Your task to perform on an android device: change the clock display to show seconds Image 0: 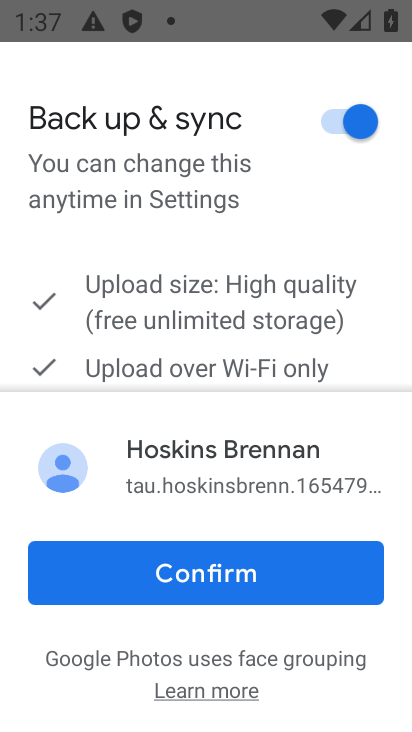
Step 0: press home button
Your task to perform on an android device: change the clock display to show seconds Image 1: 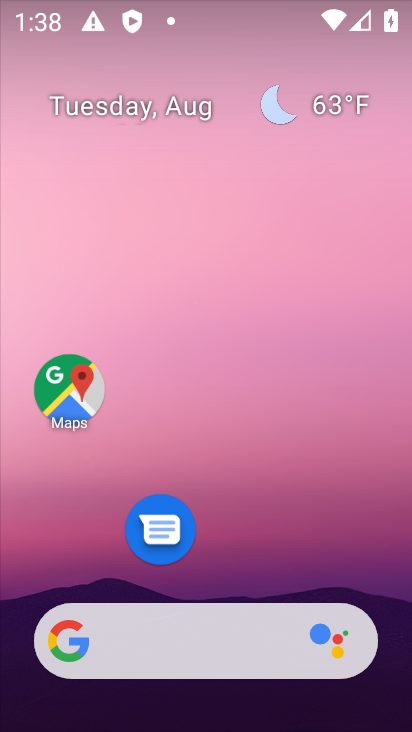
Step 1: drag from (237, 536) to (246, 12)
Your task to perform on an android device: change the clock display to show seconds Image 2: 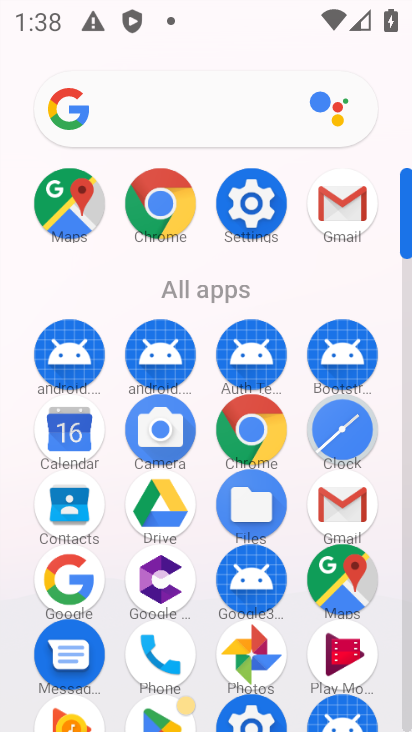
Step 2: click (326, 456)
Your task to perform on an android device: change the clock display to show seconds Image 3: 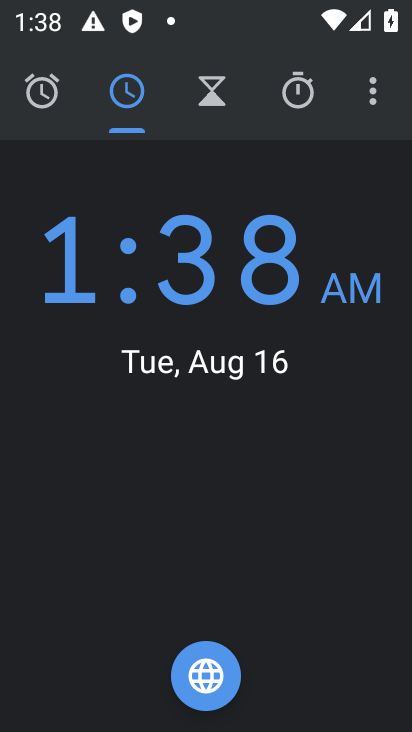
Step 3: click (367, 100)
Your task to perform on an android device: change the clock display to show seconds Image 4: 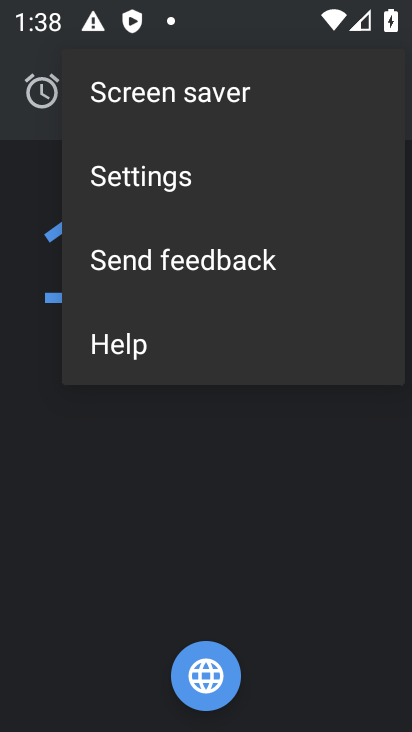
Step 4: click (163, 184)
Your task to perform on an android device: change the clock display to show seconds Image 5: 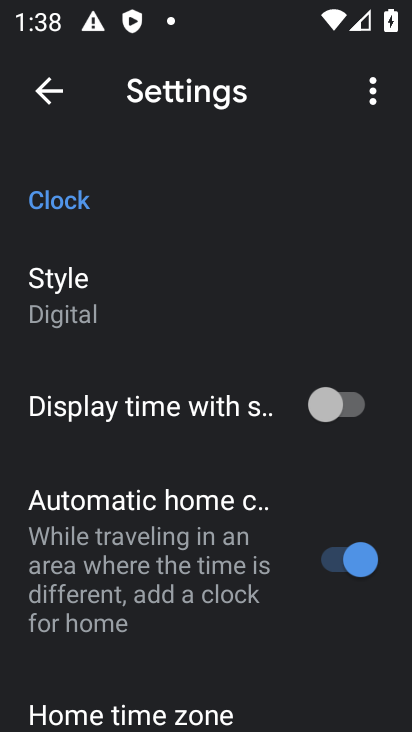
Step 5: click (139, 268)
Your task to perform on an android device: change the clock display to show seconds Image 6: 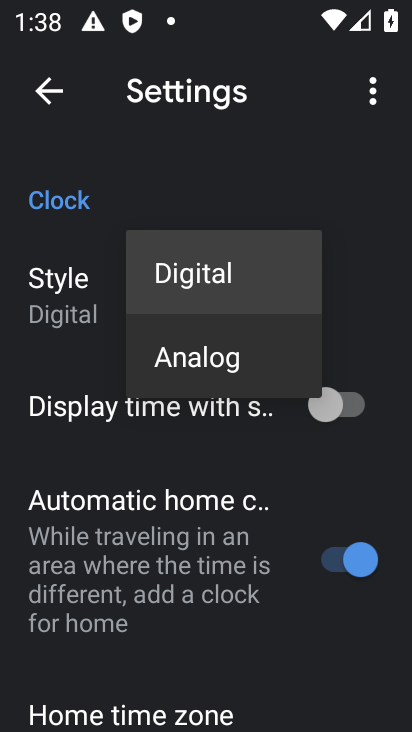
Step 6: click (175, 347)
Your task to perform on an android device: change the clock display to show seconds Image 7: 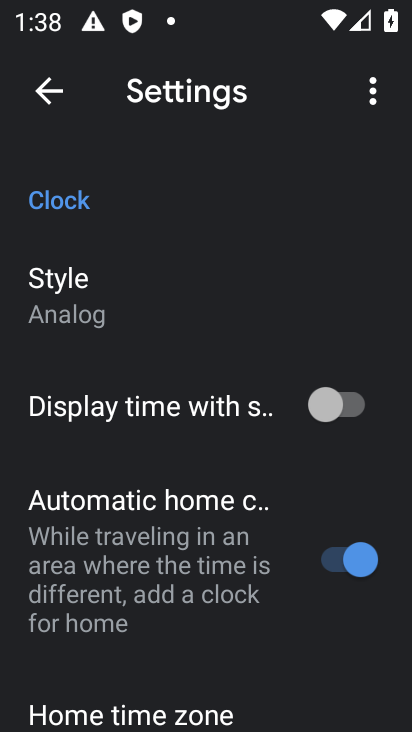
Step 7: task complete